Your task to perform on an android device: Go to ESPN.com Image 0: 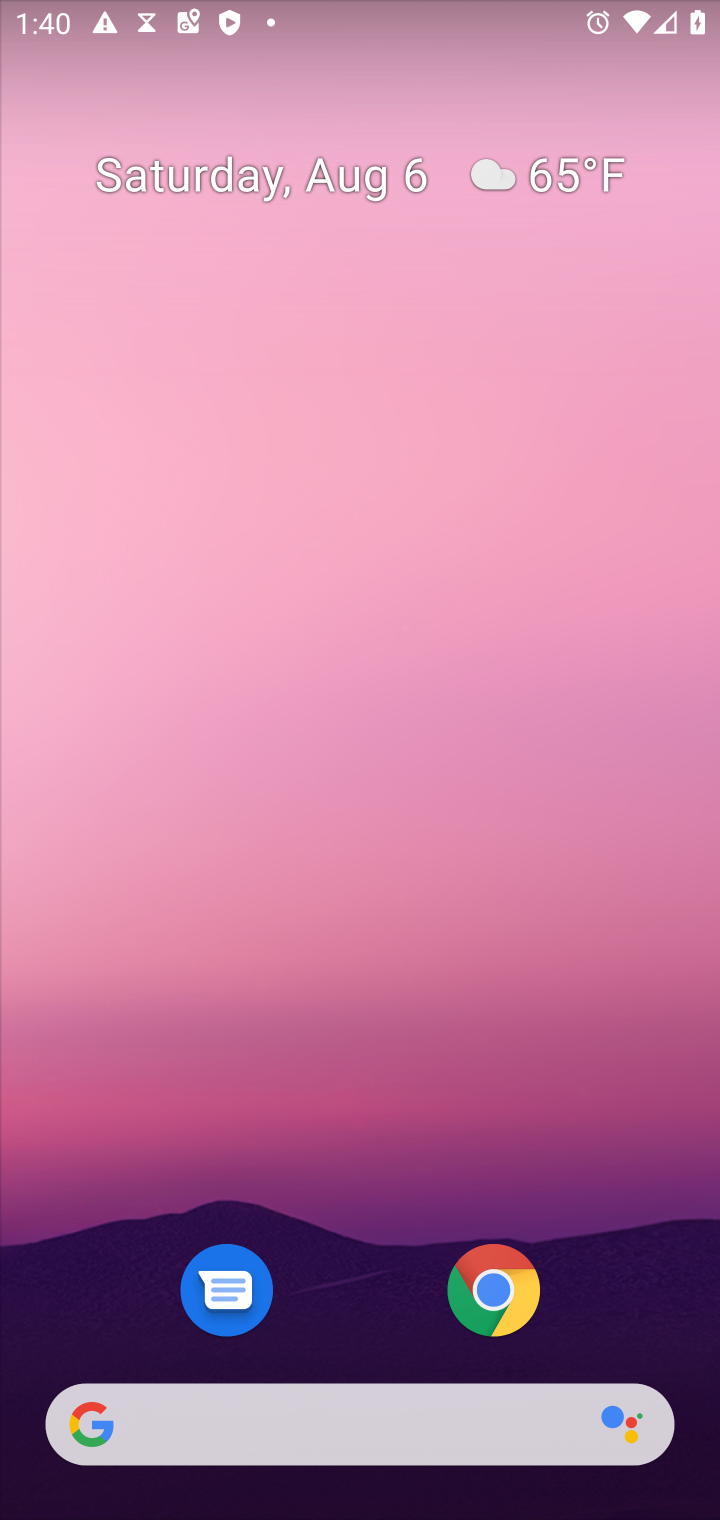
Step 0: press home button
Your task to perform on an android device: Go to ESPN.com Image 1: 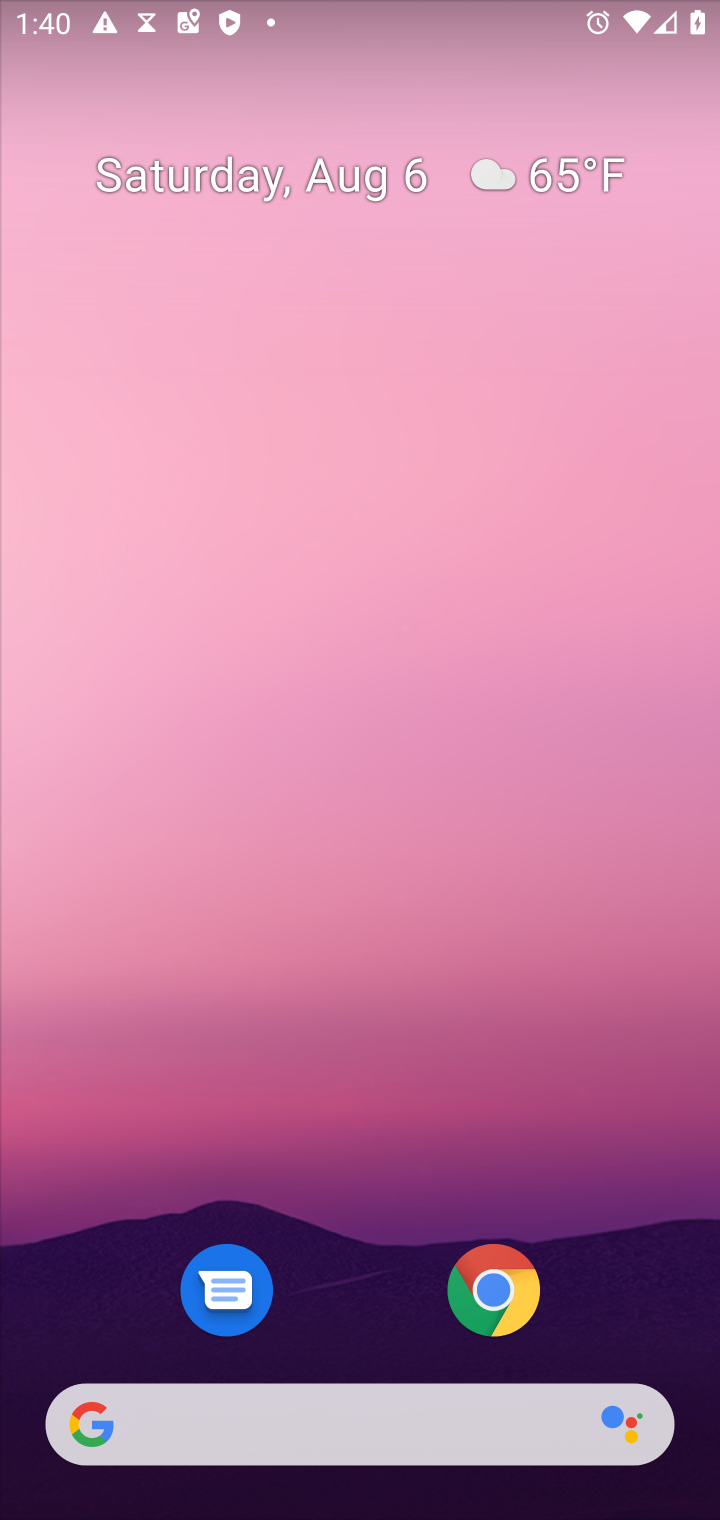
Step 1: click (491, 1283)
Your task to perform on an android device: Go to ESPN.com Image 2: 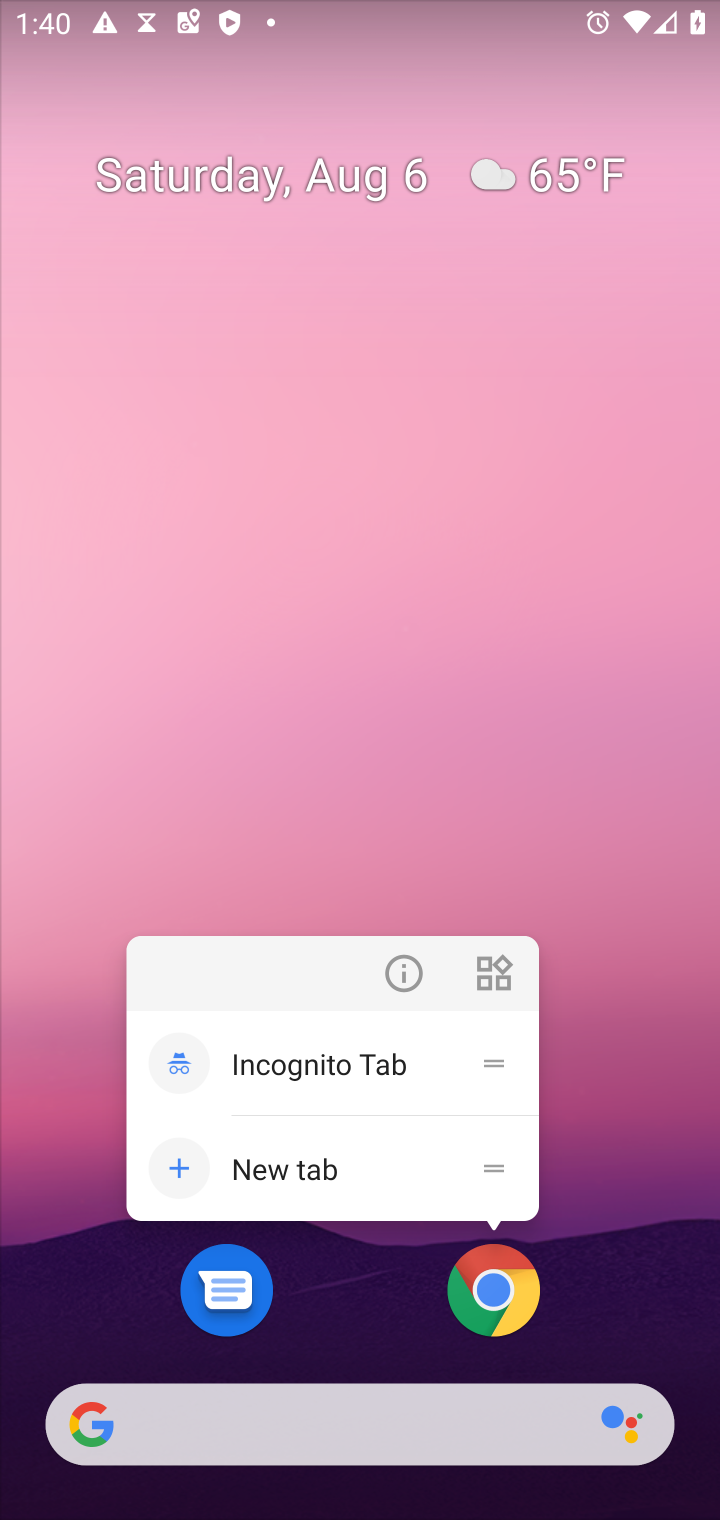
Step 2: drag from (616, 883) to (642, 205)
Your task to perform on an android device: Go to ESPN.com Image 3: 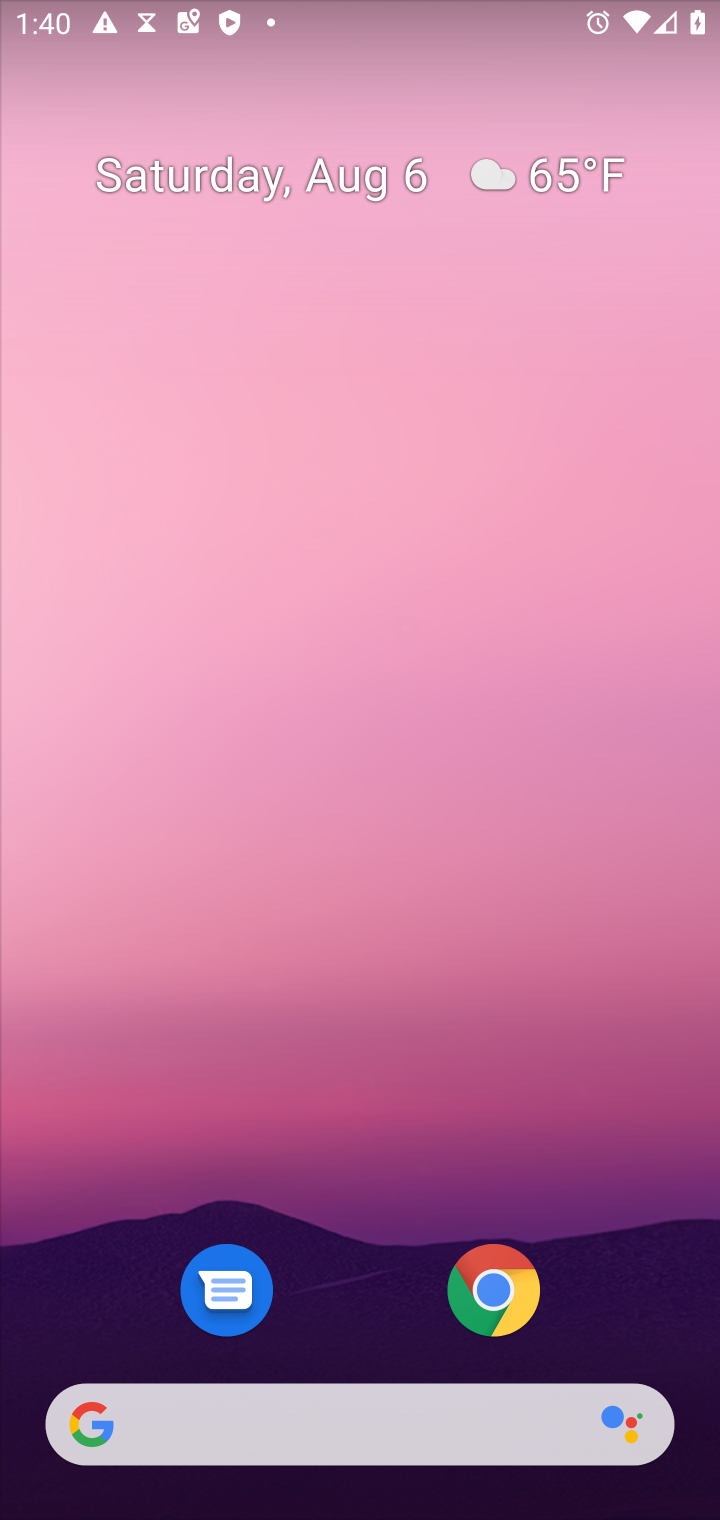
Step 3: drag from (575, 1327) to (589, 197)
Your task to perform on an android device: Go to ESPN.com Image 4: 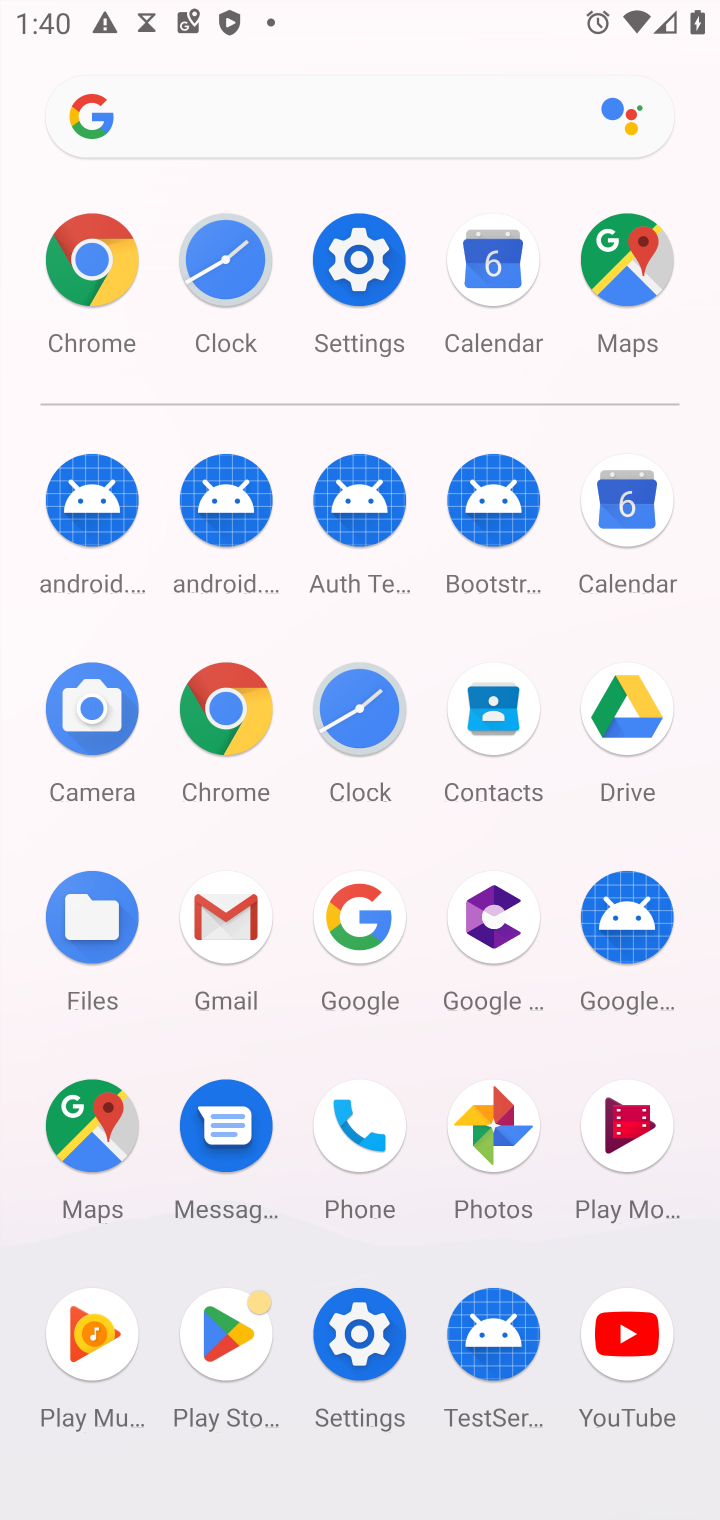
Step 4: click (76, 256)
Your task to perform on an android device: Go to ESPN.com Image 5: 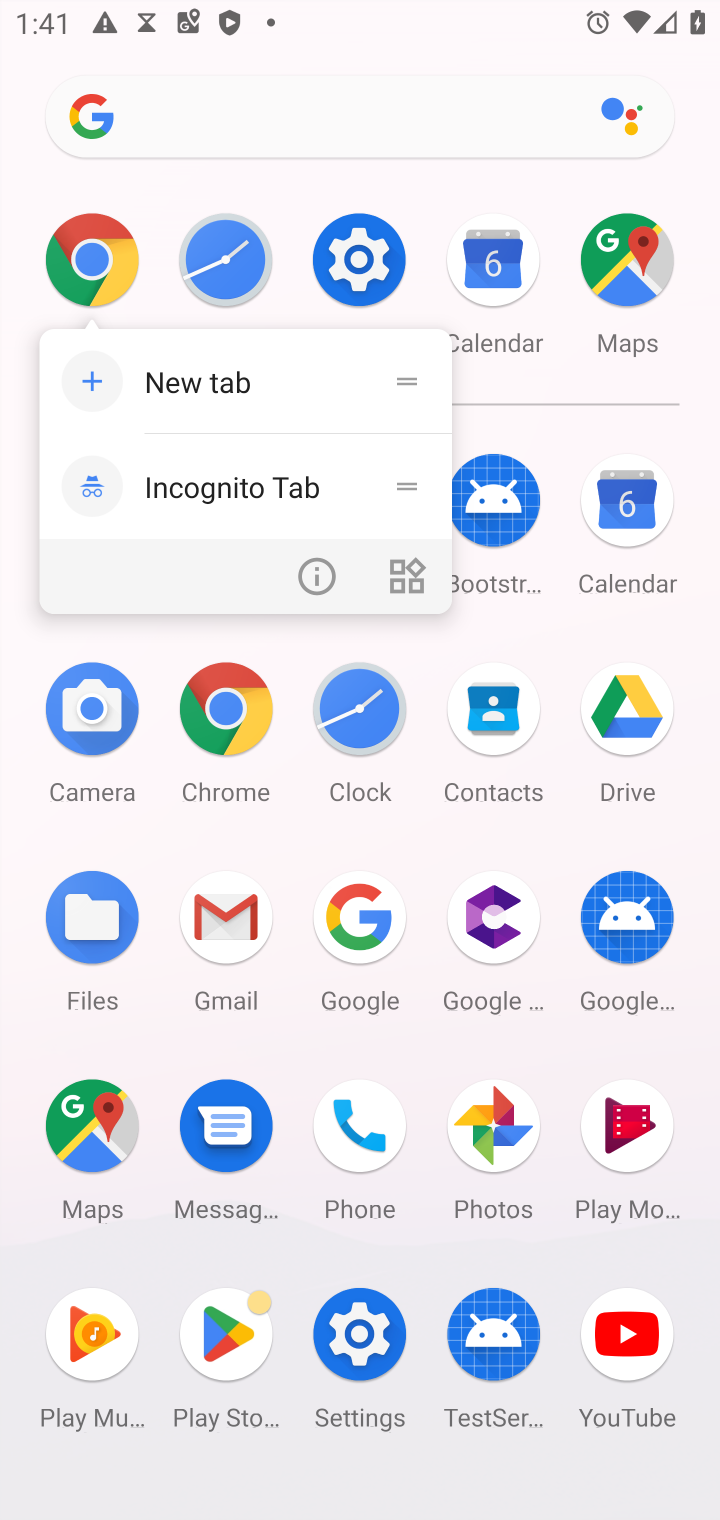
Step 5: click (231, 693)
Your task to perform on an android device: Go to ESPN.com Image 6: 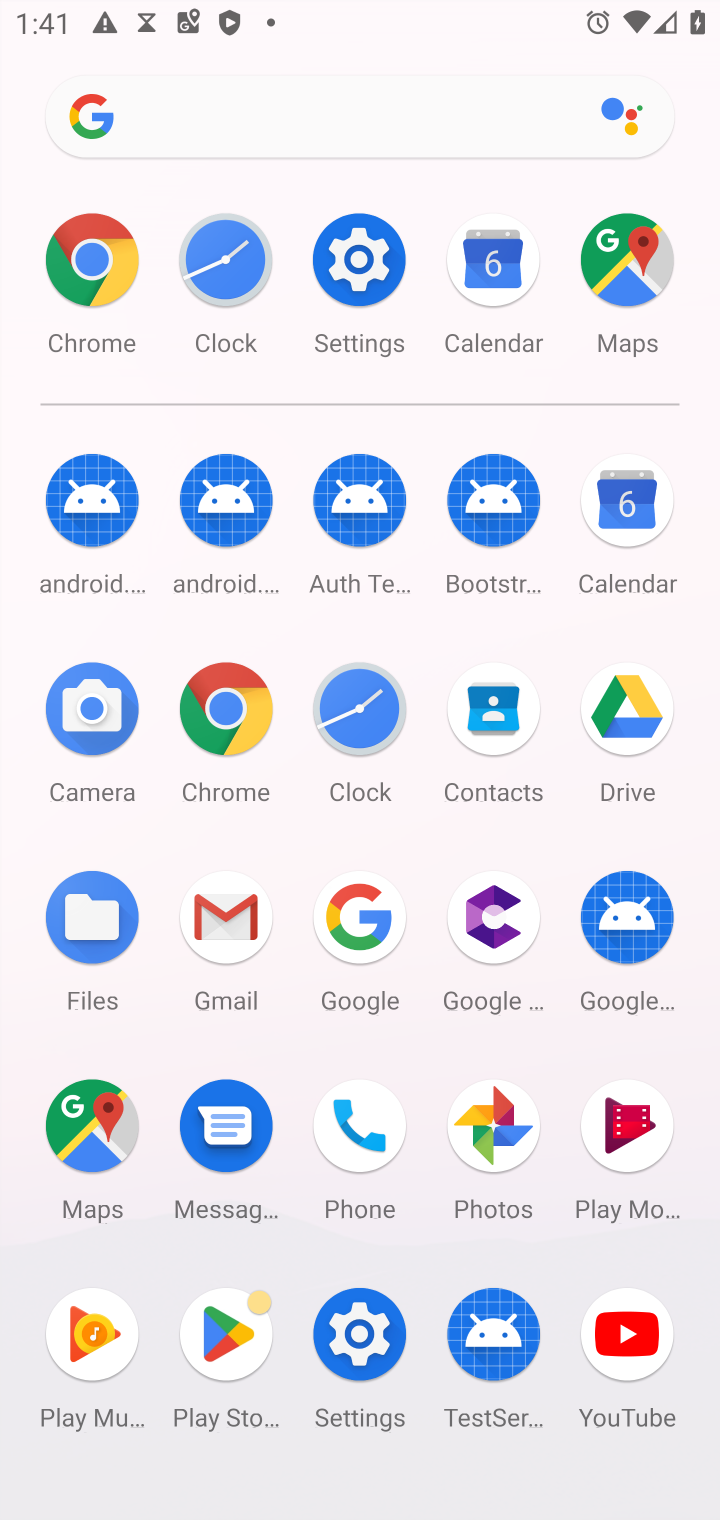
Step 6: click (220, 705)
Your task to perform on an android device: Go to ESPN.com Image 7: 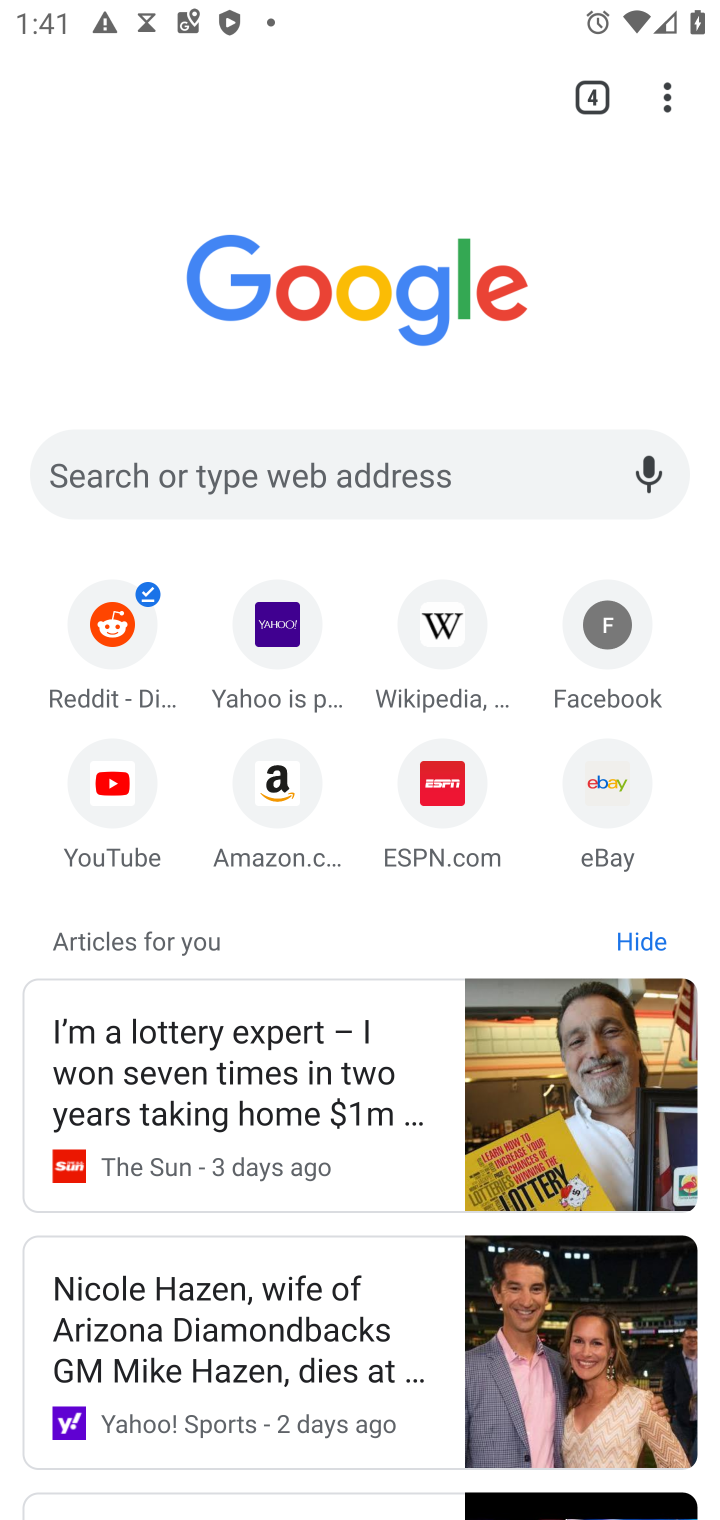
Step 7: click (422, 774)
Your task to perform on an android device: Go to ESPN.com Image 8: 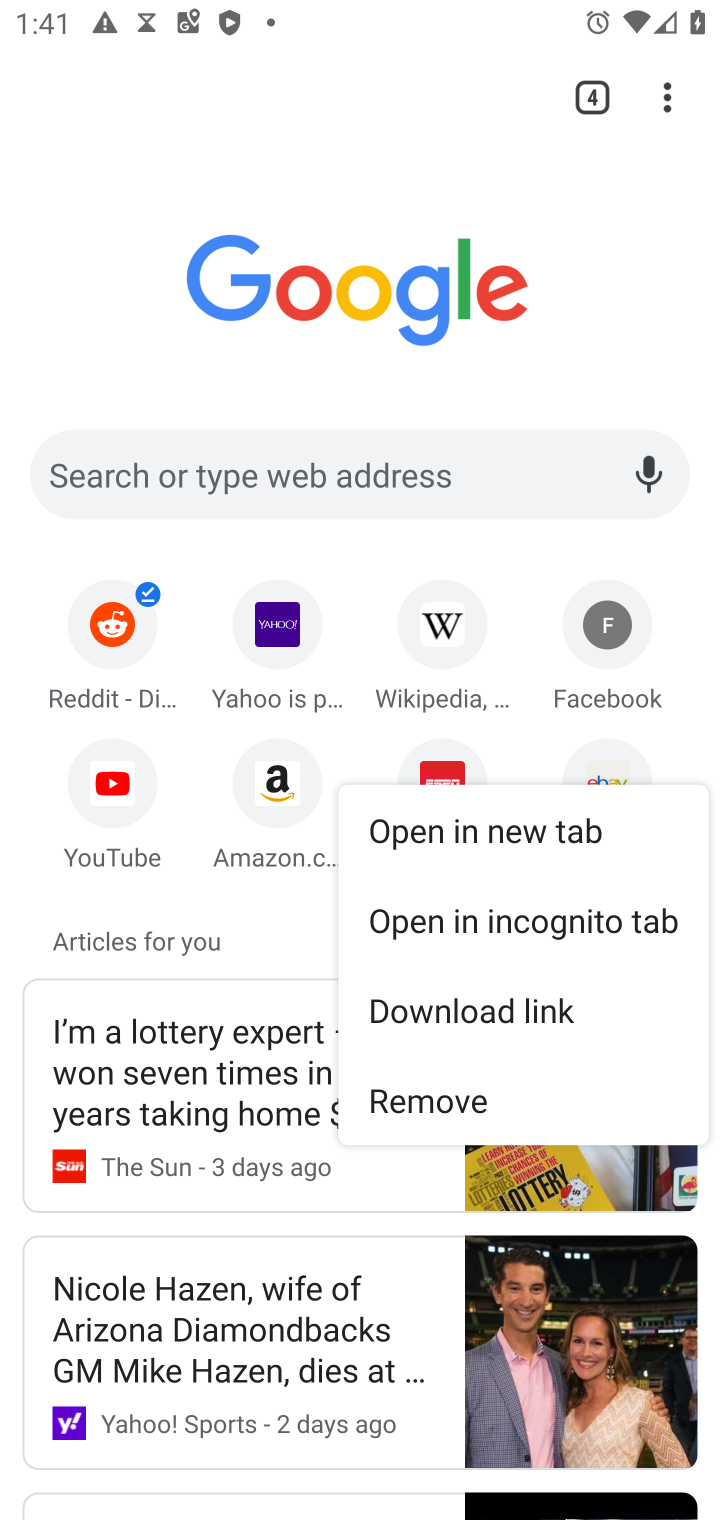
Step 8: click (430, 763)
Your task to perform on an android device: Go to ESPN.com Image 9: 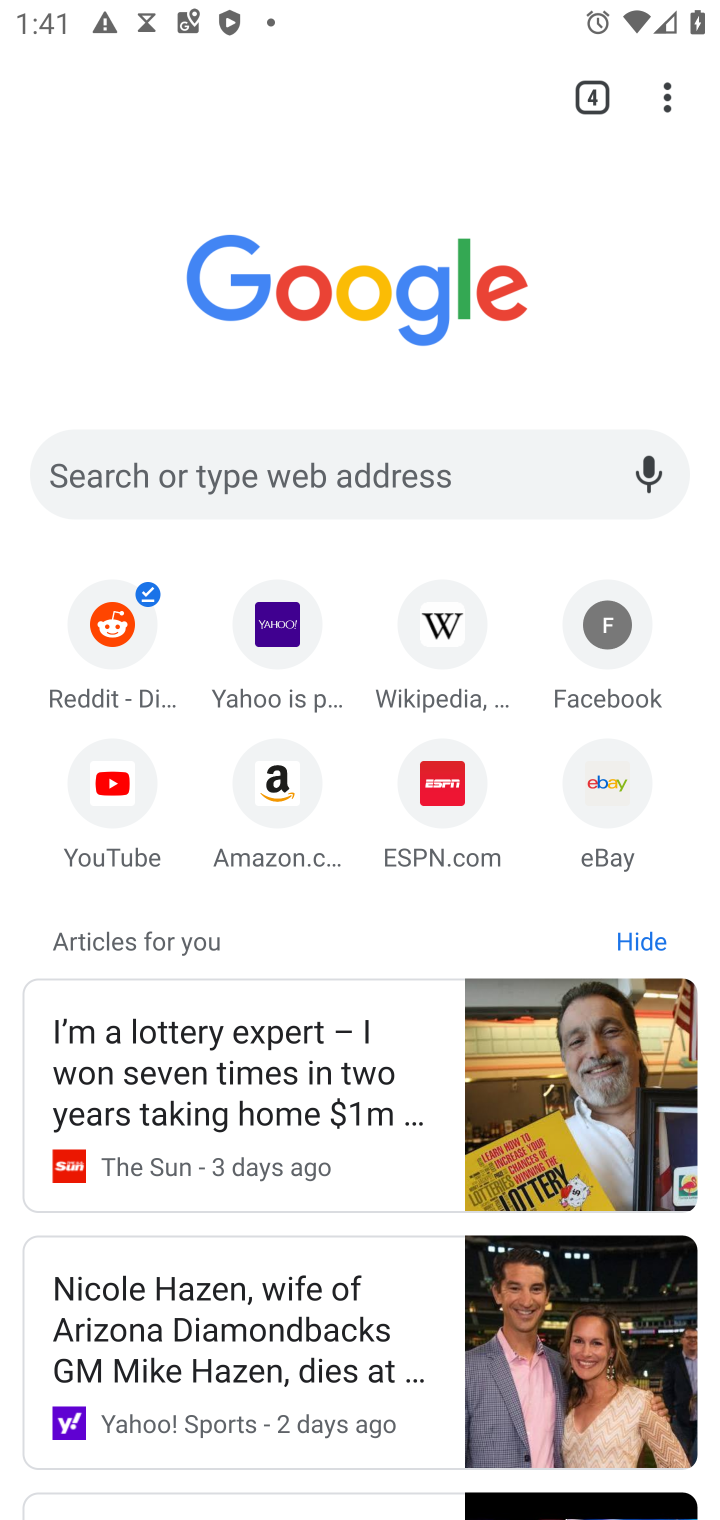
Step 9: click (435, 794)
Your task to perform on an android device: Go to ESPN.com Image 10: 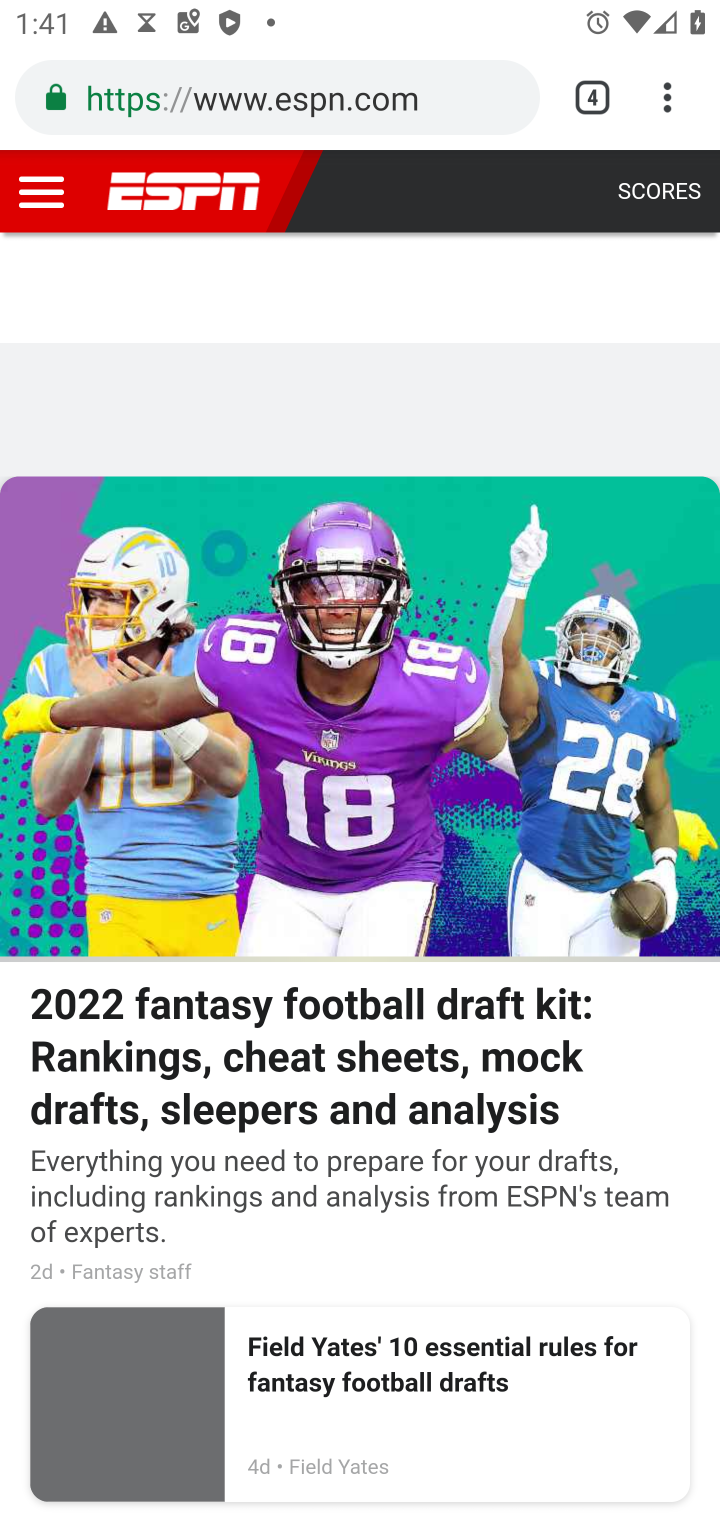
Step 10: task complete